Your task to perform on an android device: What is the recent news? Image 0: 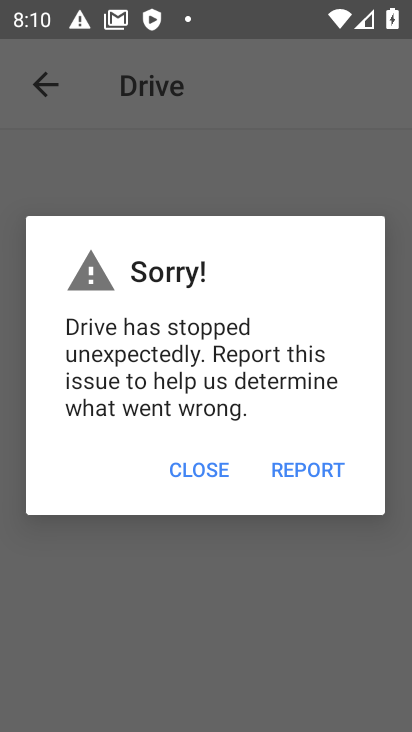
Step 0: task impossible